Your task to perform on an android device: show emergency info Image 0: 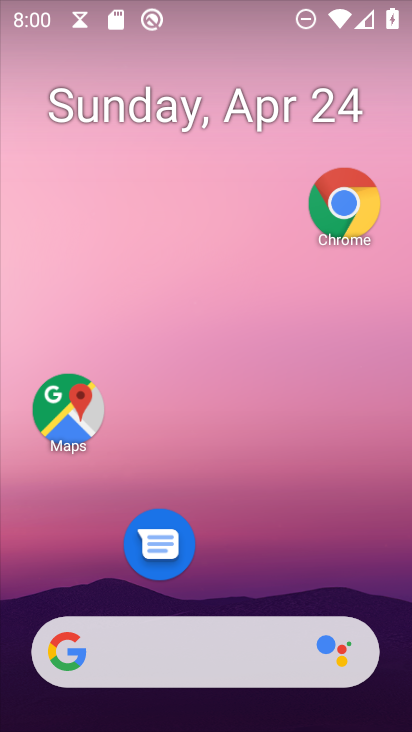
Step 0: drag from (186, 643) to (302, 112)
Your task to perform on an android device: show emergency info Image 1: 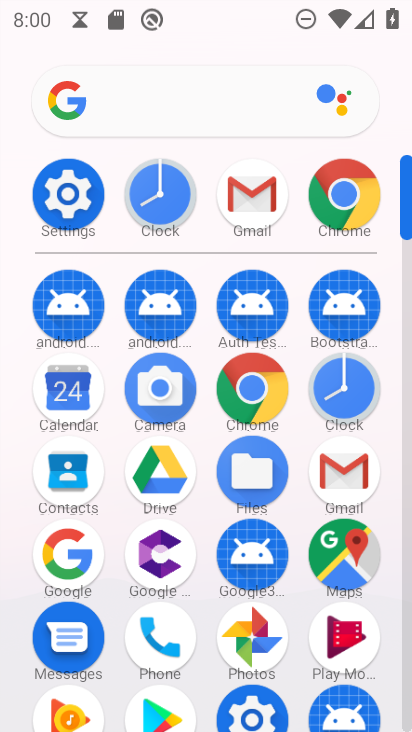
Step 1: click (75, 201)
Your task to perform on an android device: show emergency info Image 2: 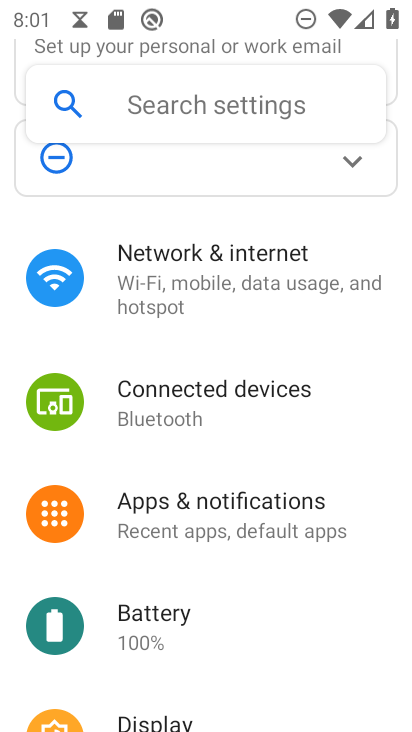
Step 2: drag from (143, 660) to (313, 112)
Your task to perform on an android device: show emergency info Image 3: 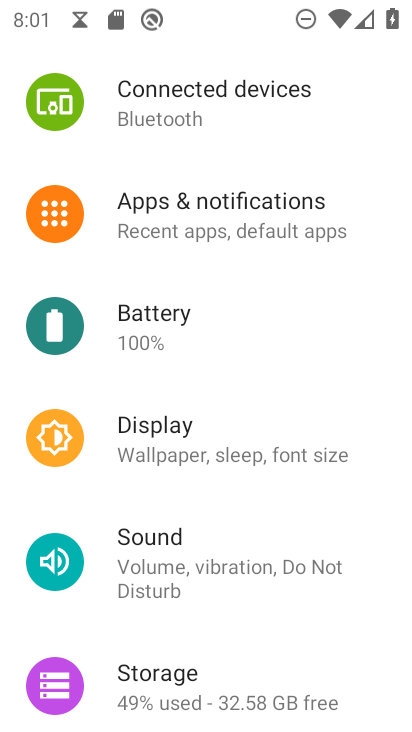
Step 3: drag from (217, 652) to (341, 115)
Your task to perform on an android device: show emergency info Image 4: 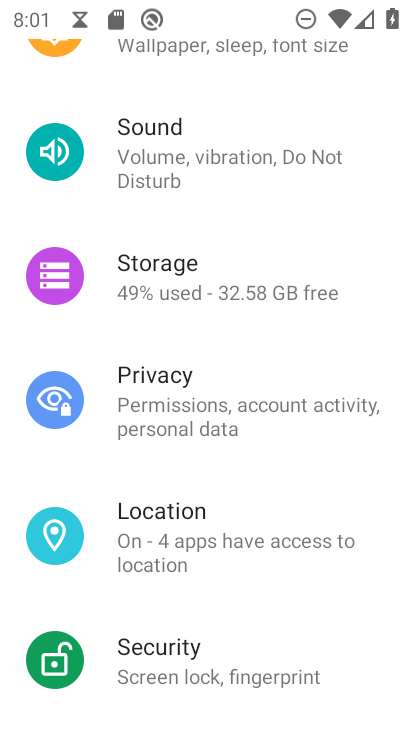
Step 4: drag from (242, 559) to (314, 159)
Your task to perform on an android device: show emergency info Image 5: 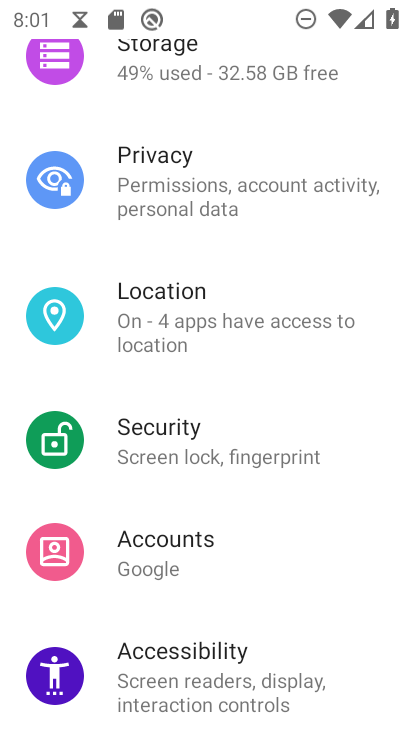
Step 5: drag from (226, 614) to (313, 61)
Your task to perform on an android device: show emergency info Image 6: 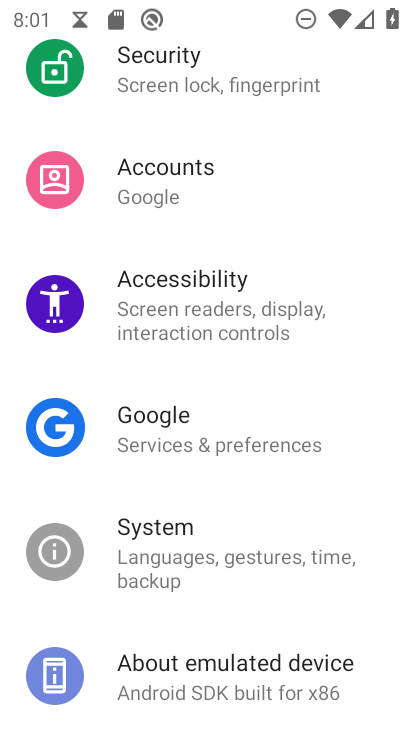
Step 6: click (198, 659)
Your task to perform on an android device: show emergency info Image 7: 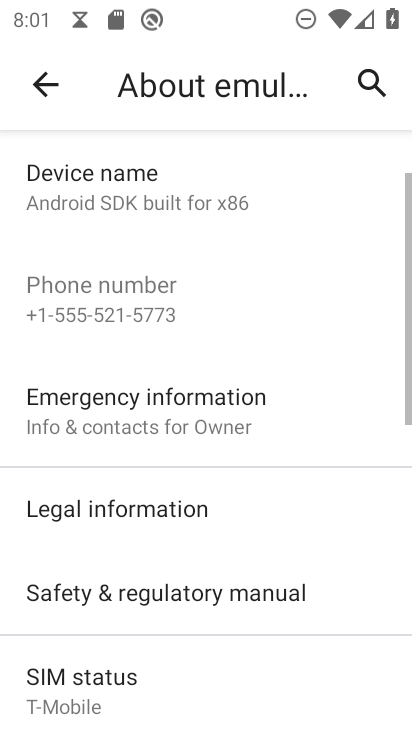
Step 7: click (164, 421)
Your task to perform on an android device: show emergency info Image 8: 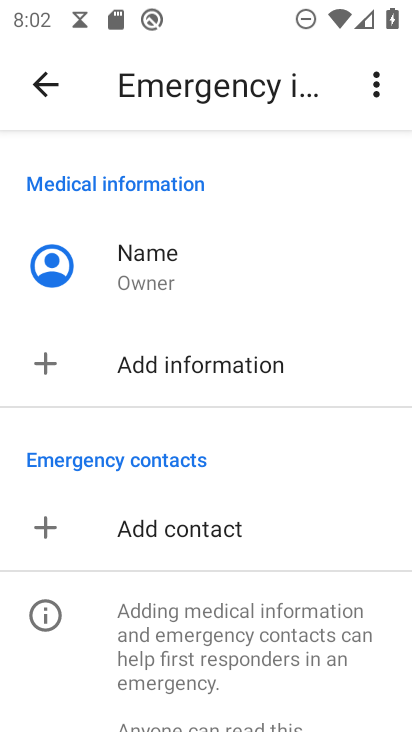
Step 8: task complete